Your task to perform on an android device: turn on the 24-hour format for clock Image 0: 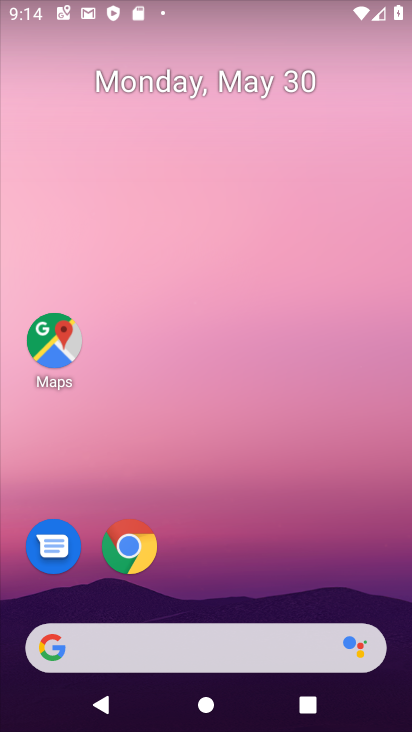
Step 0: drag from (375, 579) to (288, 142)
Your task to perform on an android device: turn on the 24-hour format for clock Image 1: 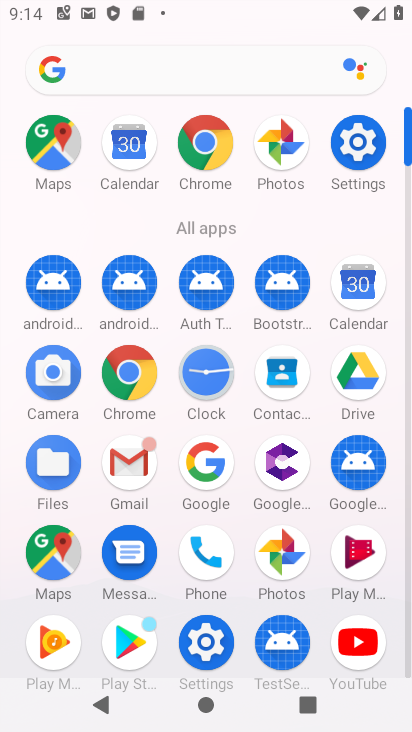
Step 1: click (210, 385)
Your task to perform on an android device: turn on the 24-hour format for clock Image 2: 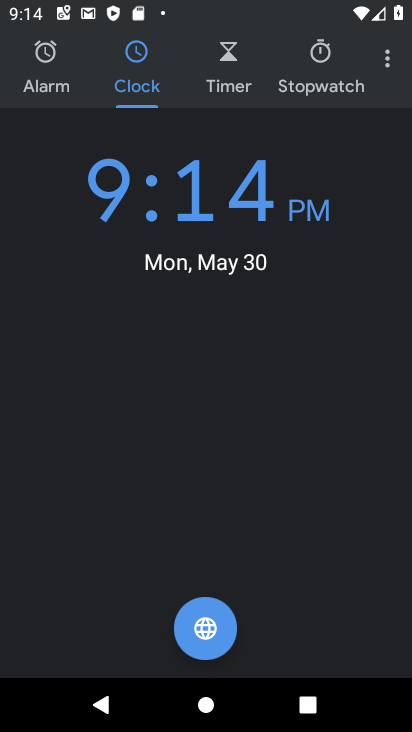
Step 2: click (385, 70)
Your task to perform on an android device: turn on the 24-hour format for clock Image 3: 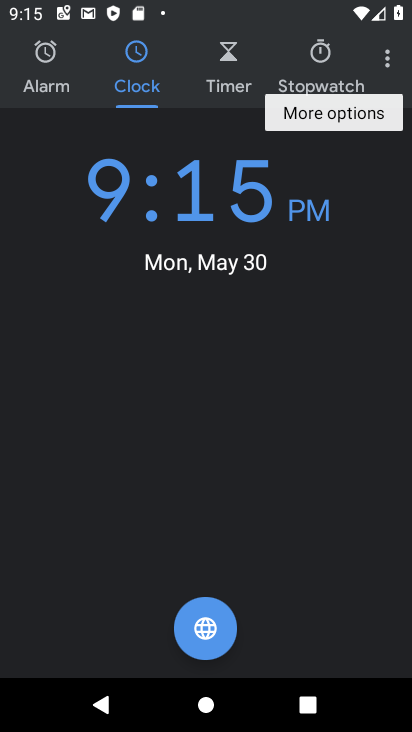
Step 3: click (385, 70)
Your task to perform on an android device: turn on the 24-hour format for clock Image 4: 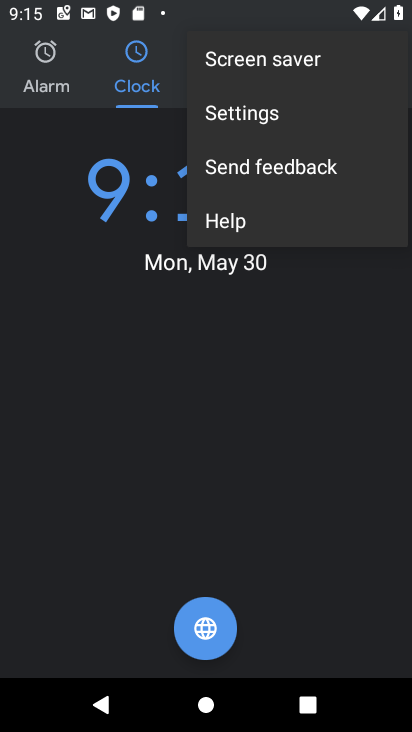
Step 4: click (234, 121)
Your task to perform on an android device: turn on the 24-hour format for clock Image 5: 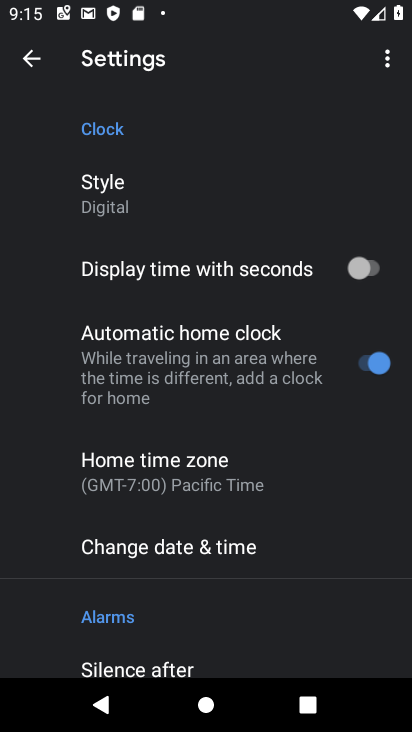
Step 5: click (206, 556)
Your task to perform on an android device: turn on the 24-hour format for clock Image 6: 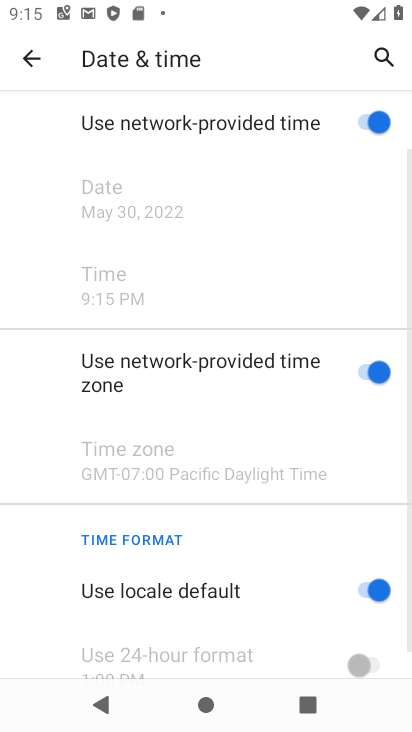
Step 6: drag from (216, 617) to (216, 351)
Your task to perform on an android device: turn on the 24-hour format for clock Image 7: 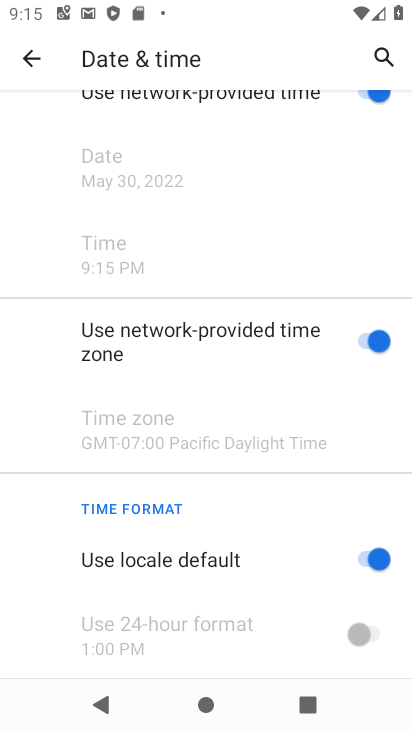
Step 7: click (376, 559)
Your task to perform on an android device: turn on the 24-hour format for clock Image 8: 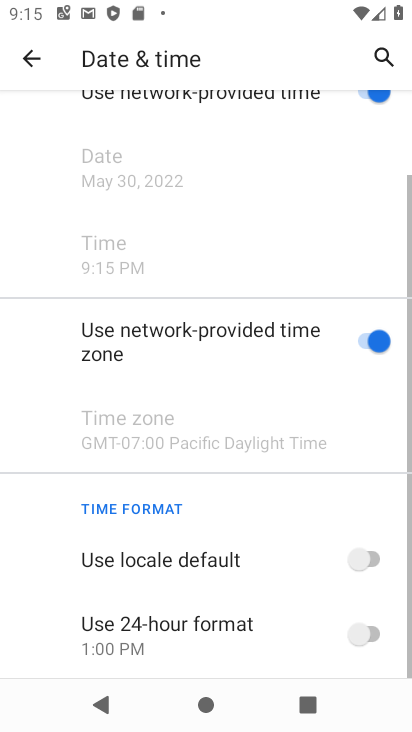
Step 8: click (380, 637)
Your task to perform on an android device: turn on the 24-hour format for clock Image 9: 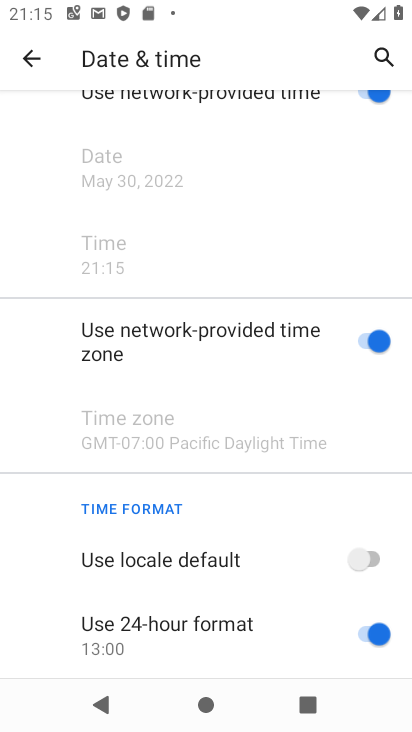
Step 9: task complete